Your task to perform on an android device: open app "Microsoft Authenticator" Image 0: 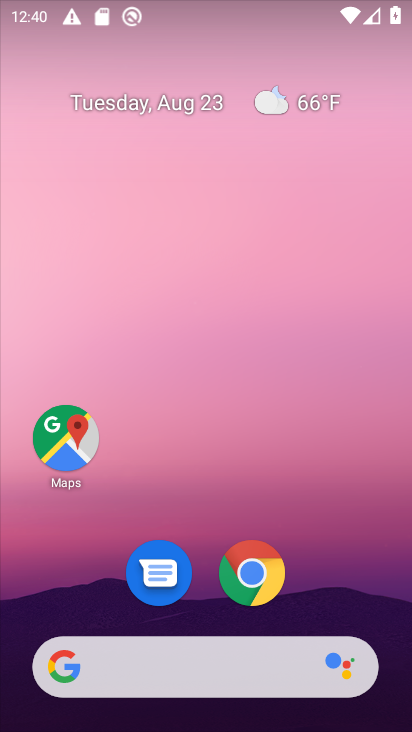
Step 0: drag from (205, 503) to (205, 148)
Your task to perform on an android device: open app "Microsoft Authenticator" Image 1: 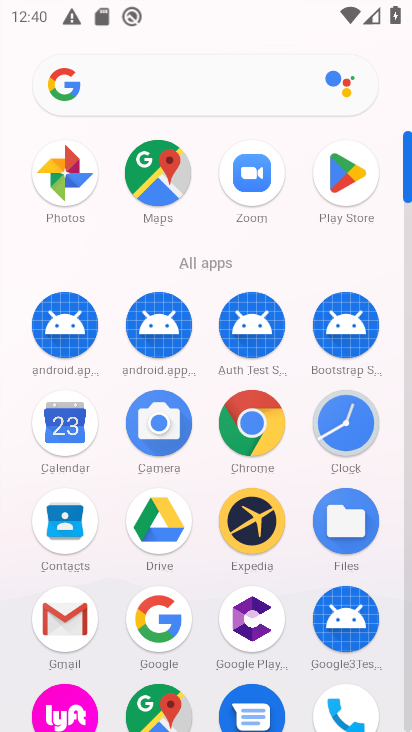
Step 1: click (356, 162)
Your task to perform on an android device: open app "Microsoft Authenticator" Image 2: 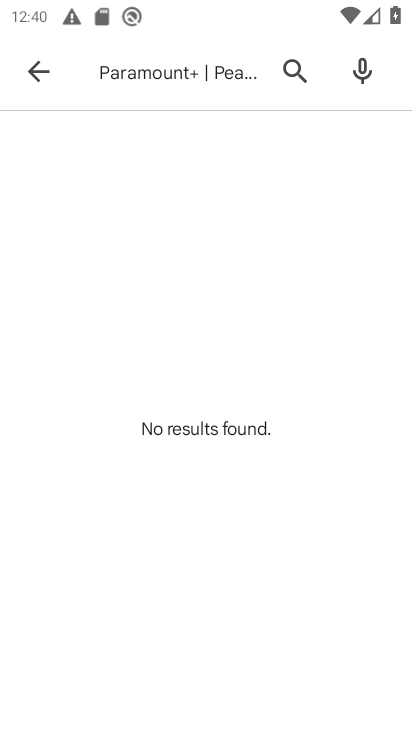
Step 2: drag from (301, 64) to (347, 64)
Your task to perform on an android device: open app "Microsoft Authenticator" Image 3: 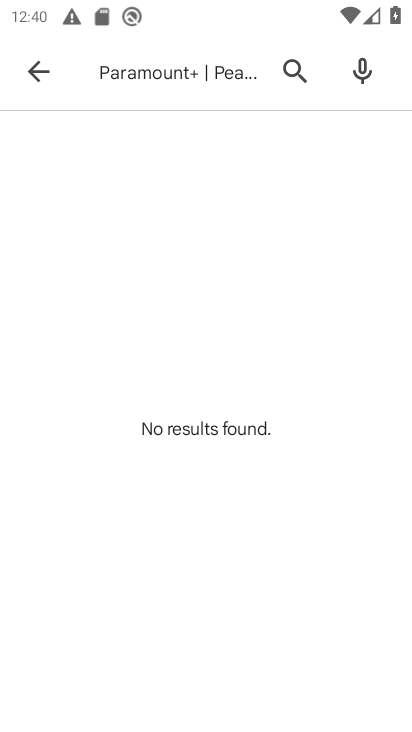
Step 3: click (295, 62)
Your task to perform on an android device: open app "Microsoft Authenticator" Image 4: 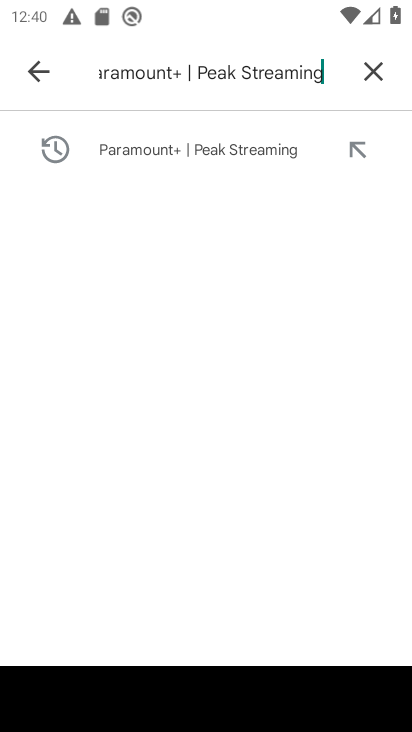
Step 4: click (373, 78)
Your task to perform on an android device: open app "Microsoft Authenticator" Image 5: 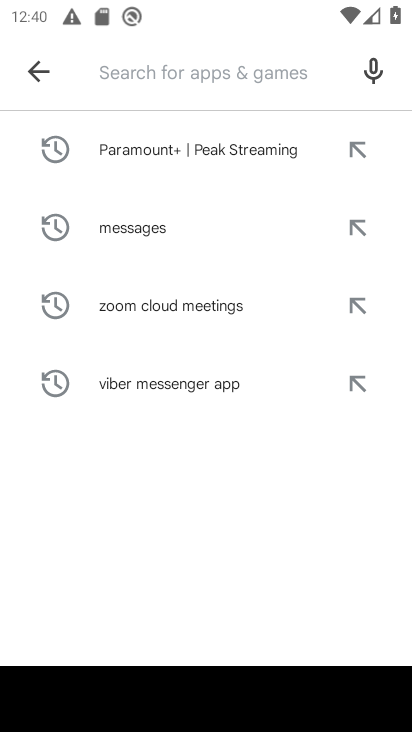
Step 5: type "Microsoft Authenticato"
Your task to perform on an android device: open app "Microsoft Authenticator" Image 6: 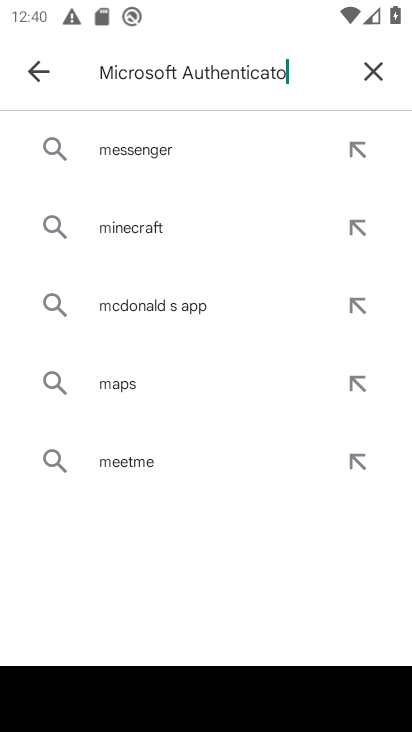
Step 6: type ""
Your task to perform on an android device: open app "Microsoft Authenticator" Image 7: 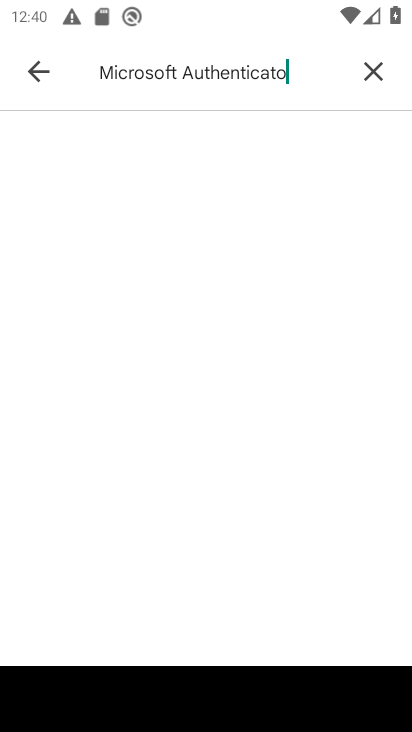
Step 7: click (380, 66)
Your task to perform on an android device: open app "Microsoft Authenticator" Image 8: 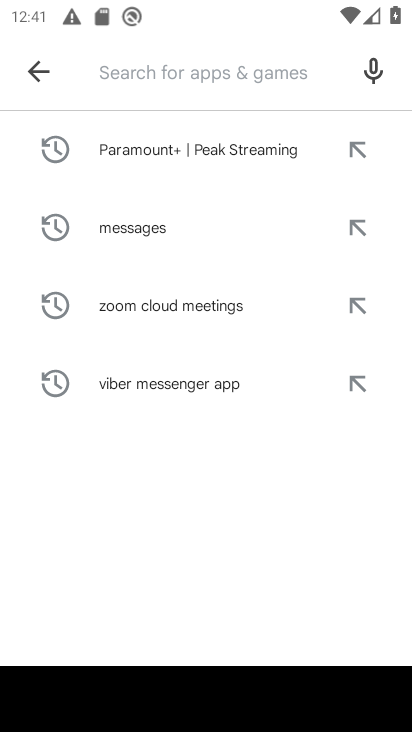
Step 8: type "Microsoft Authenticator"
Your task to perform on an android device: open app "Microsoft Authenticator" Image 9: 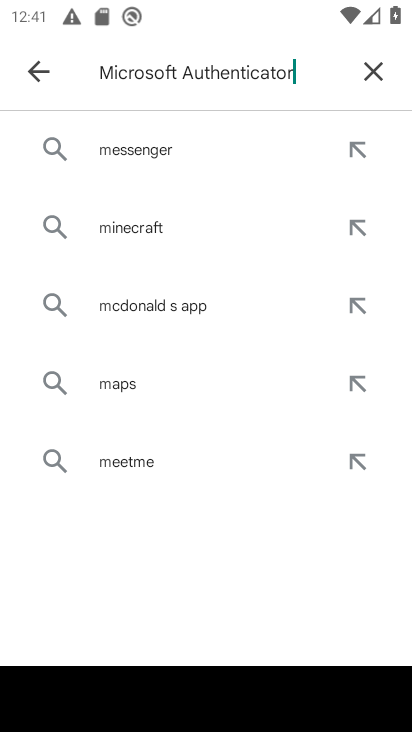
Step 9: type ""
Your task to perform on an android device: open app "Microsoft Authenticator" Image 10: 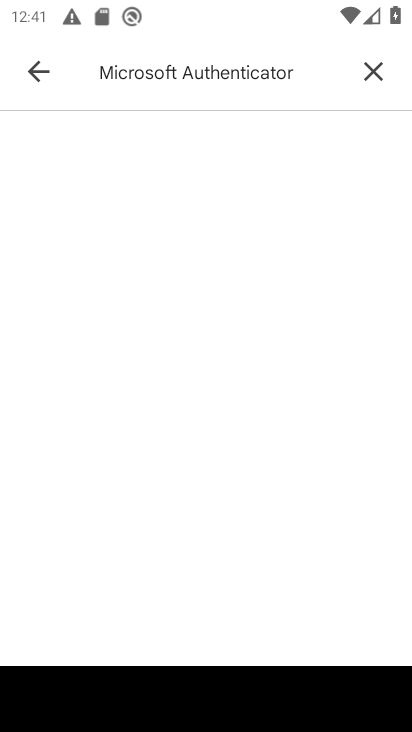
Step 10: task complete